Your task to perform on an android device: Open notification settings Image 0: 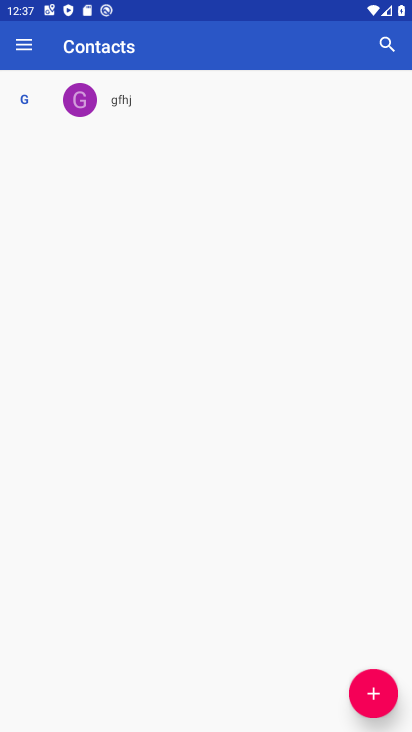
Step 0: press home button
Your task to perform on an android device: Open notification settings Image 1: 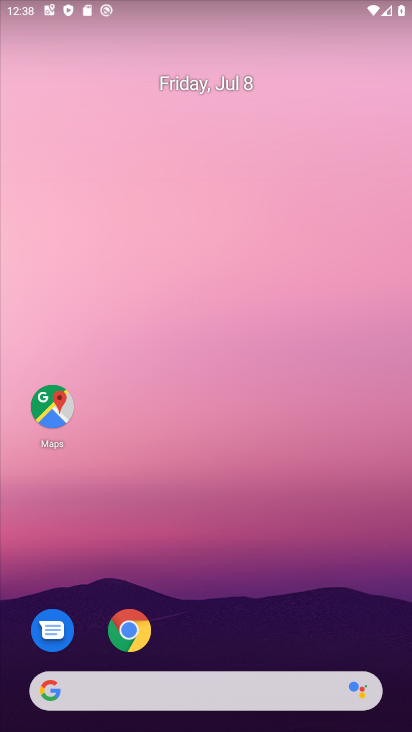
Step 1: drag from (403, 637) to (270, 66)
Your task to perform on an android device: Open notification settings Image 2: 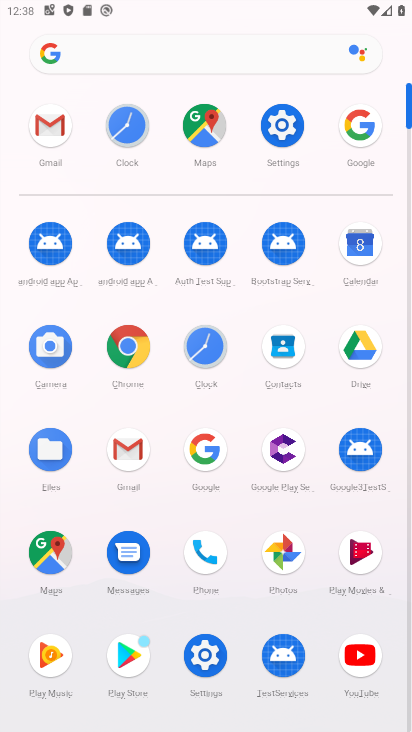
Step 2: click (272, 128)
Your task to perform on an android device: Open notification settings Image 3: 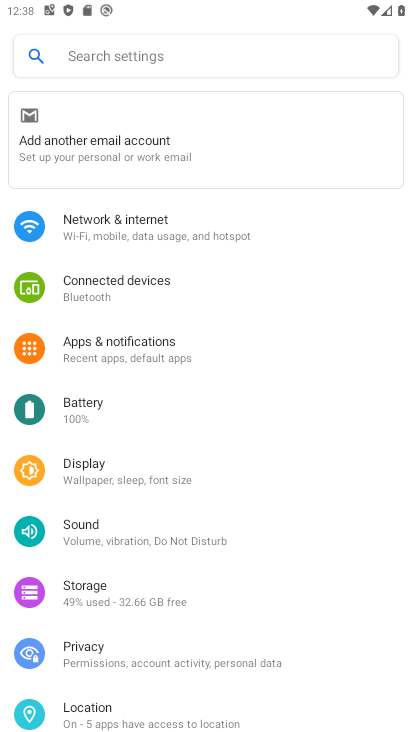
Step 3: click (127, 355)
Your task to perform on an android device: Open notification settings Image 4: 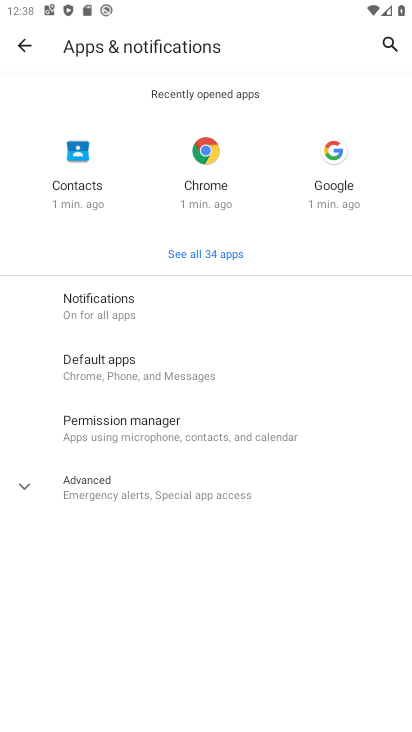
Step 4: task complete